Your task to perform on an android device: choose inbox layout in the gmail app Image 0: 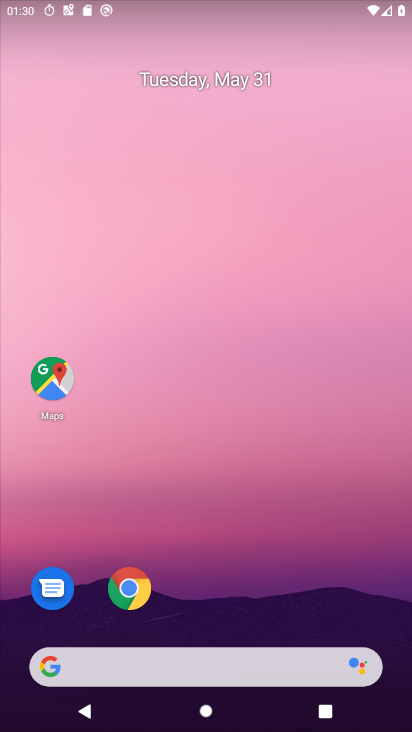
Step 0: drag from (236, 680) to (230, 59)
Your task to perform on an android device: choose inbox layout in the gmail app Image 1: 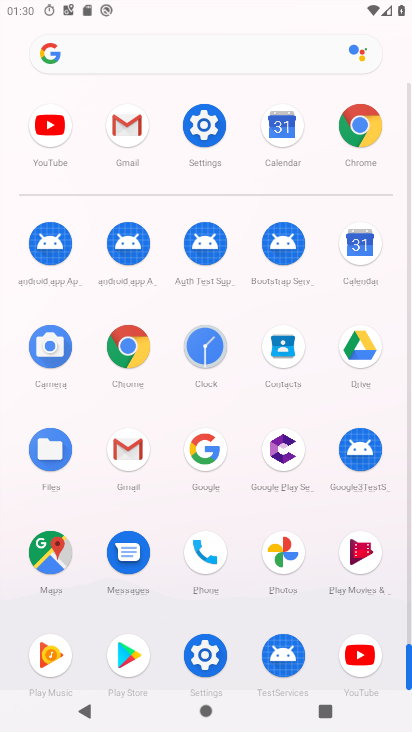
Step 1: click (140, 468)
Your task to perform on an android device: choose inbox layout in the gmail app Image 2: 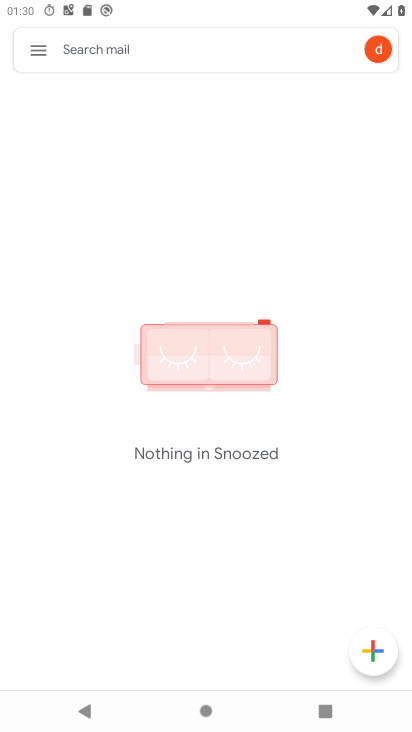
Step 2: click (35, 45)
Your task to perform on an android device: choose inbox layout in the gmail app Image 3: 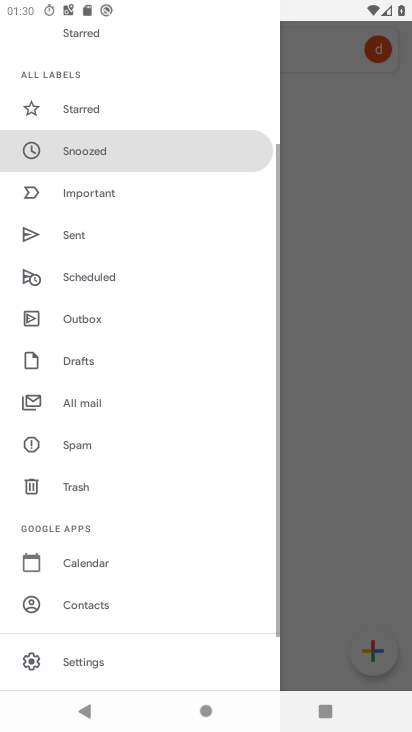
Step 3: drag from (164, 271) to (174, 124)
Your task to perform on an android device: choose inbox layout in the gmail app Image 4: 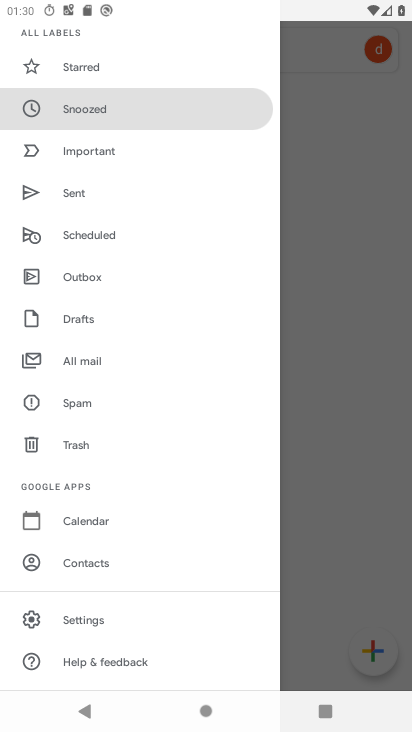
Step 4: click (126, 616)
Your task to perform on an android device: choose inbox layout in the gmail app Image 5: 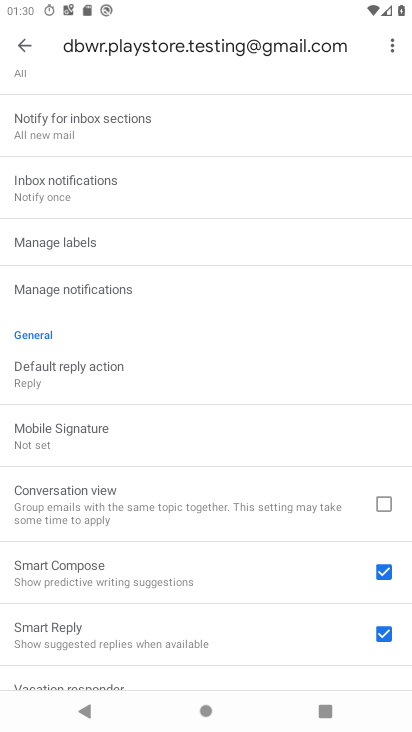
Step 5: drag from (250, 209) to (202, 722)
Your task to perform on an android device: choose inbox layout in the gmail app Image 6: 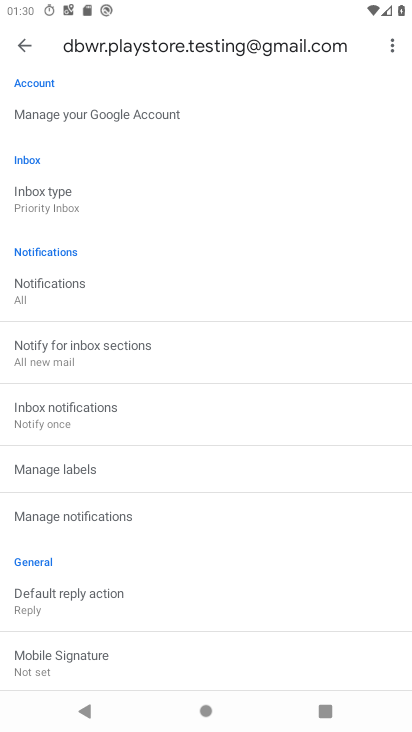
Step 6: click (111, 189)
Your task to perform on an android device: choose inbox layout in the gmail app Image 7: 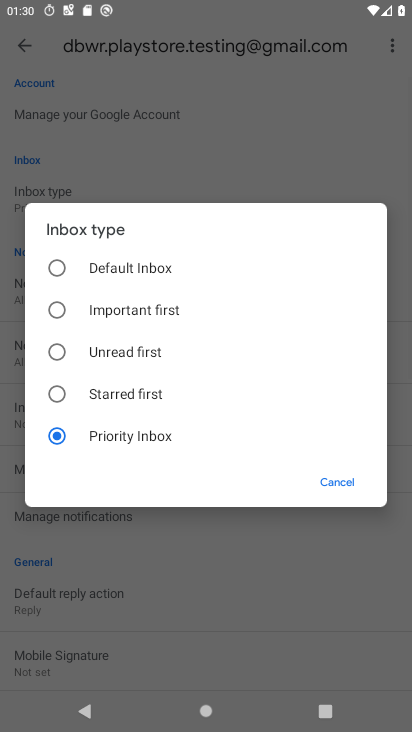
Step 7: click (129, 306)
Your task to perform on an android device: choose inbox layout in the gmail app Image 8: 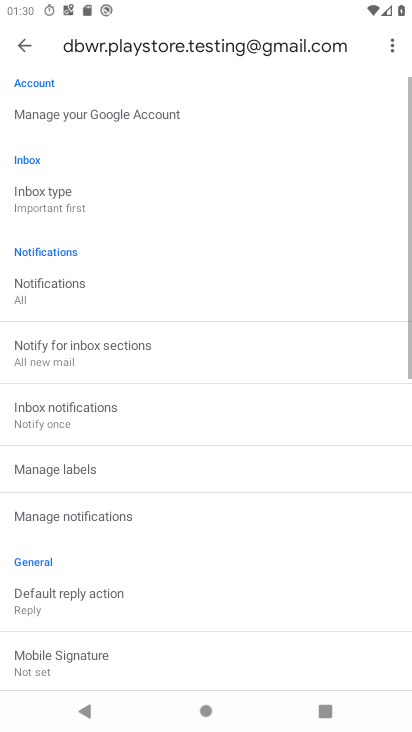
Step 8: task complete